Your task to perform on an android device: Open the Play Movies app and select the watchlist tab. Image 0: 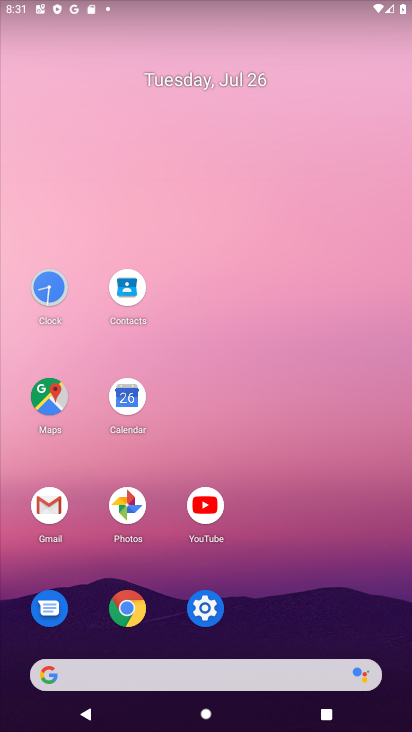
Step 0: drag from (289, 612) to (268, 204)
Your task to perform on an android device: Open the Play Movies app and select the watchlist tab. Image 1: 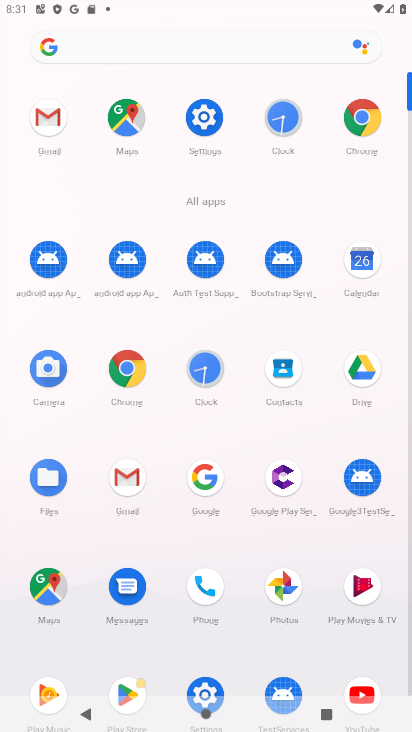
Step 1: click (364, 582)
Your task to perform on an android device: Open the Play Movies app and select the watchlist tab. Image 2: 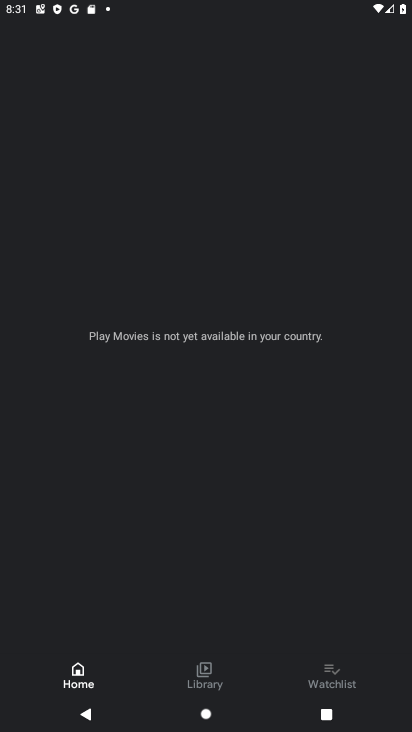
Step 2: click (321, 671)
Your task to perform on an android device: Open the Play Movies app and select the watchlist tab. Image 3: 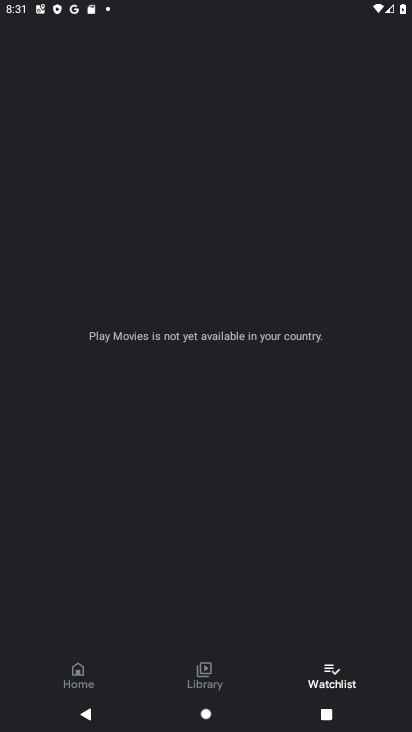
Step 3: task complete